Your task to perform on an android device: Open sound settings Image 0: 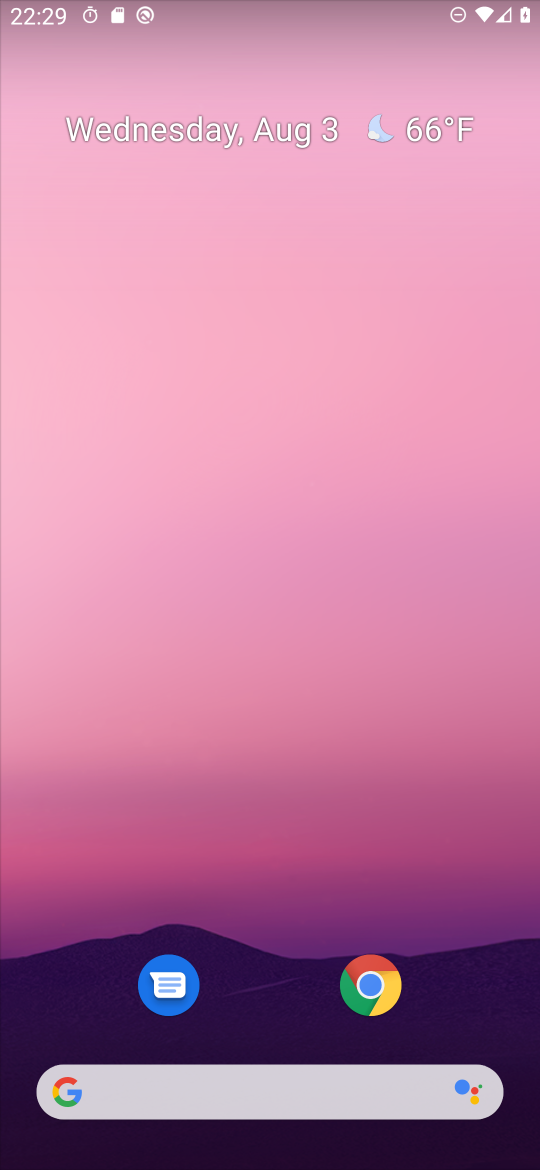
Step 0: drag from (270, 1002) to (280, 418)
Your task to perform on an android device: Open sound settings Image 1: 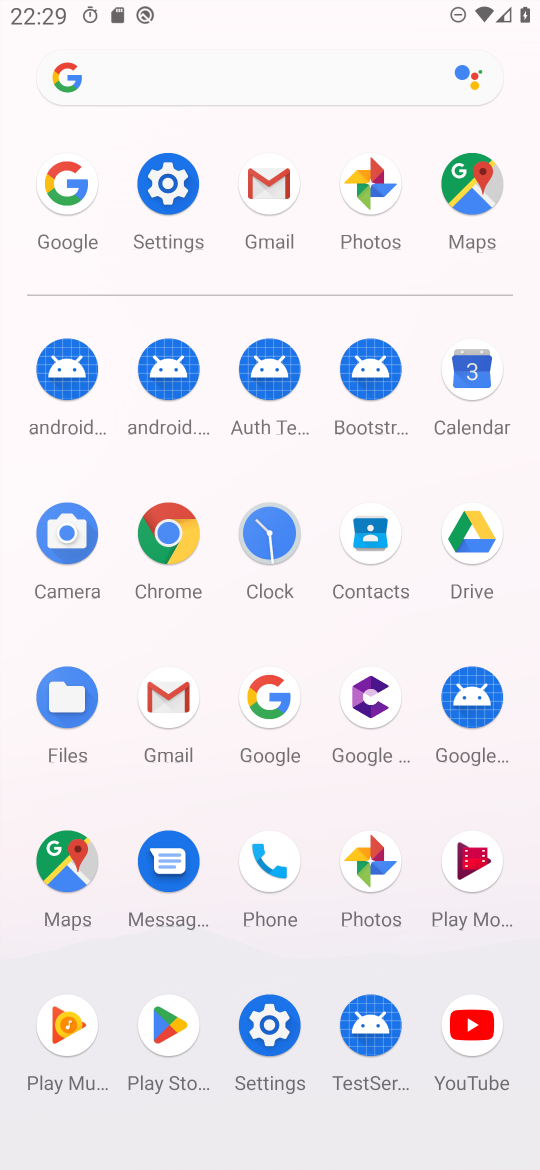
Step 1: click (191, 207)
Your task to perform on an android device: Open sound settings Image 2: 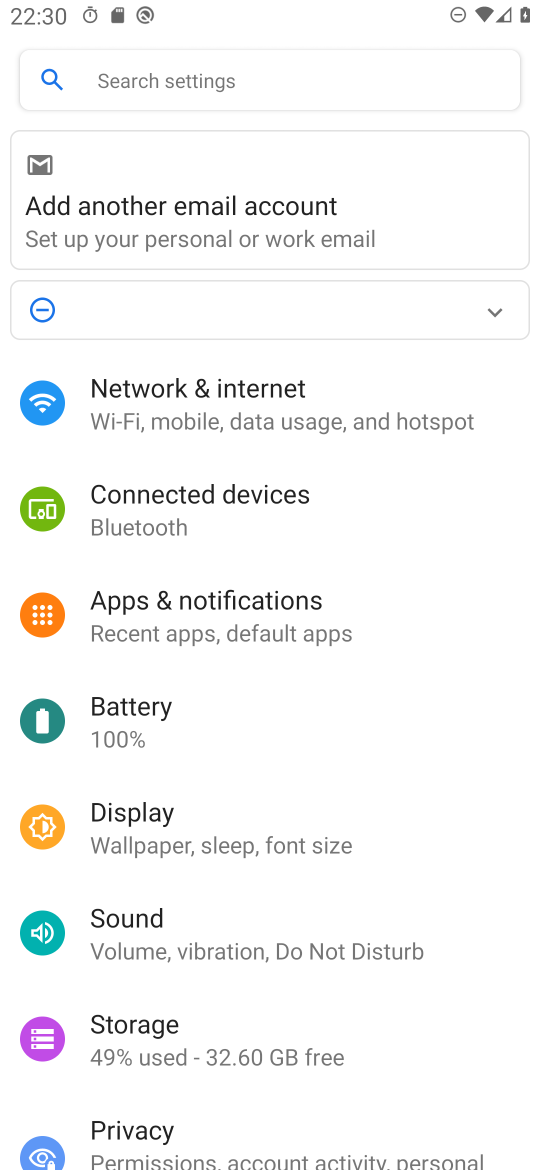
Step 2: click (186, 957)
Your task to perform on an android device: Open sound settings Image 3: 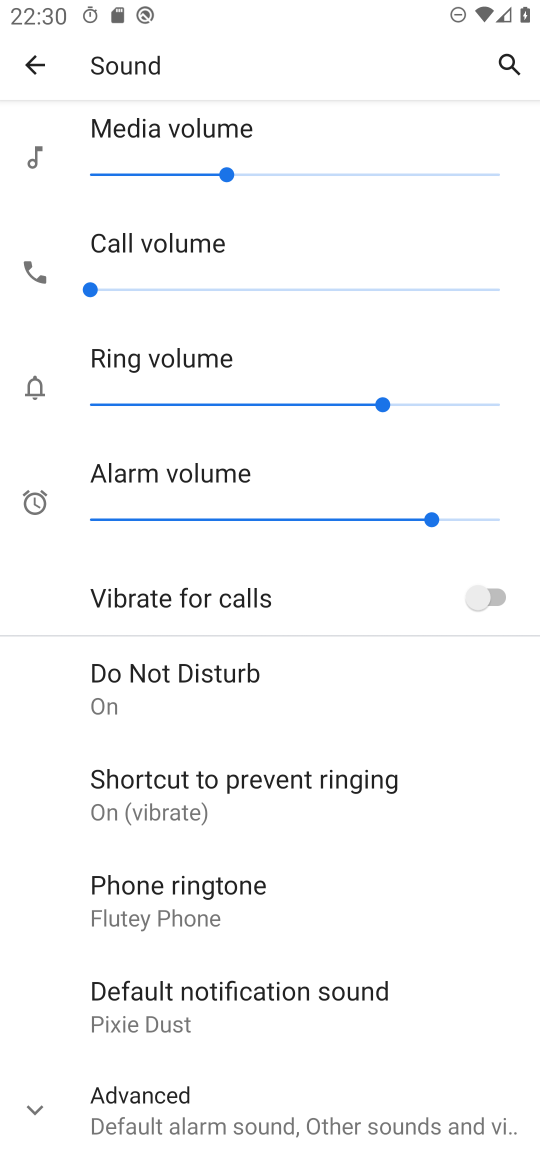
Step 3: task complete